Your task to perform on an android device: turn off location Image 0: 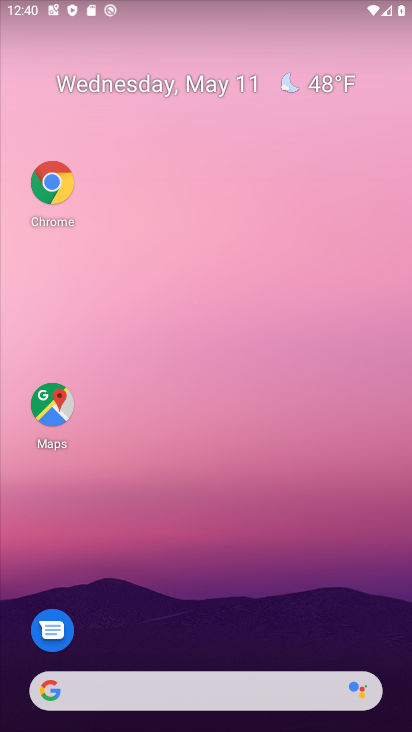
Step 0: drag from (203, 656) to (124, 0)
Your task to perform on an android device: turn off location Image 1: 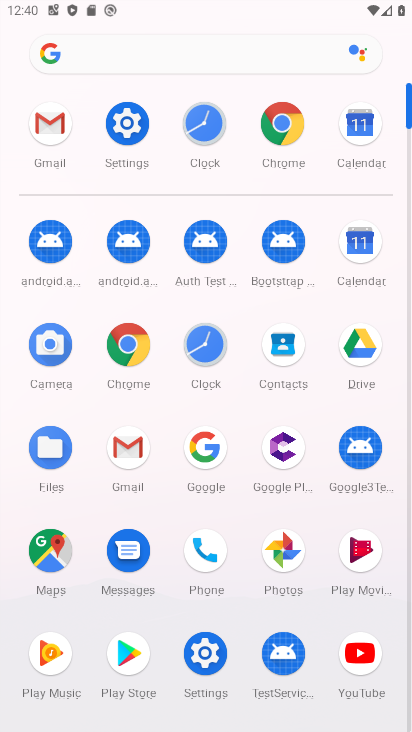
Step 1: click (126, 123)
Your task to perform on an android device: turn off location Image 2: 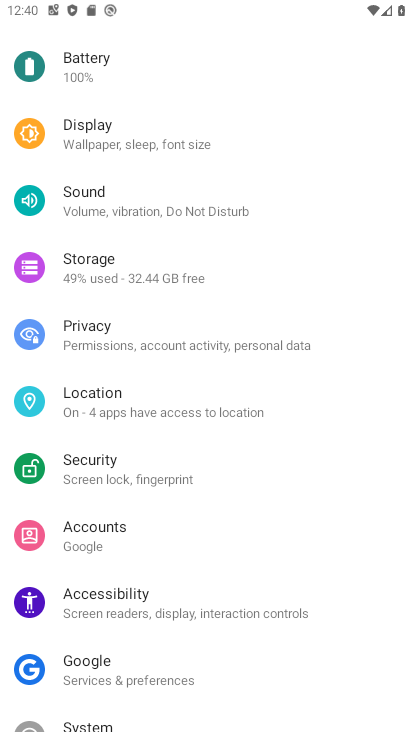
Step 2: click (87, 386)
Your task to perform on an android device: turn off location Image 3: 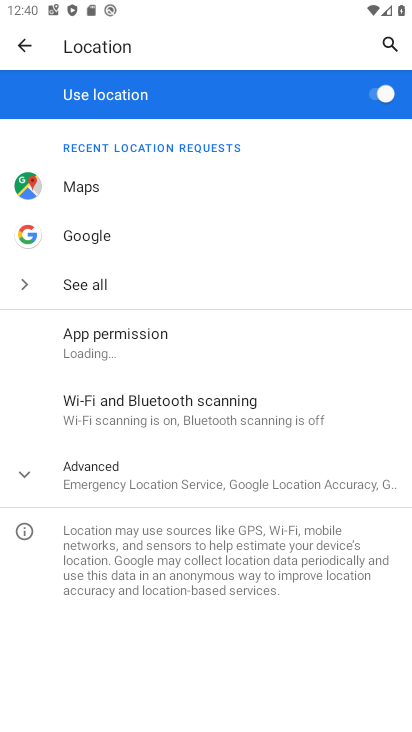
Step 3: click (370, 94)
Your task to perform on an android device: turn off location Image 4: 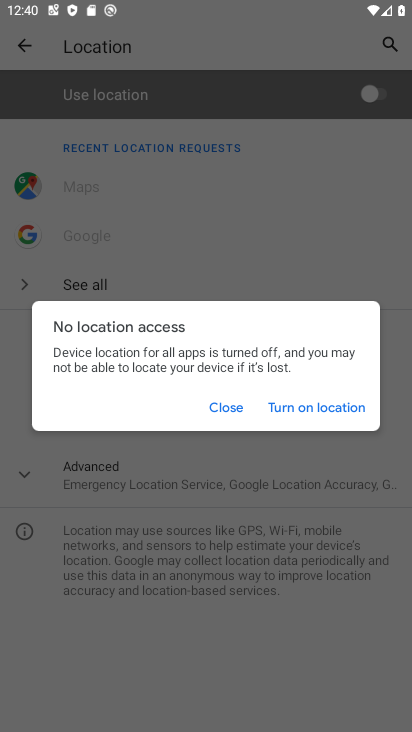
Step 4: task complete